Your task to perform on an android device: Is it going to rain tomorrow? Image 0: 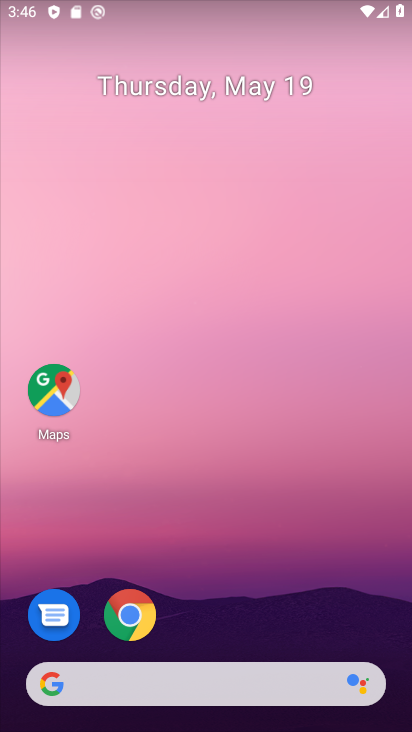
Step 0: click (119, 690)
Your task to perform on an android device: Is it going to rain tomorrow? Image 1: 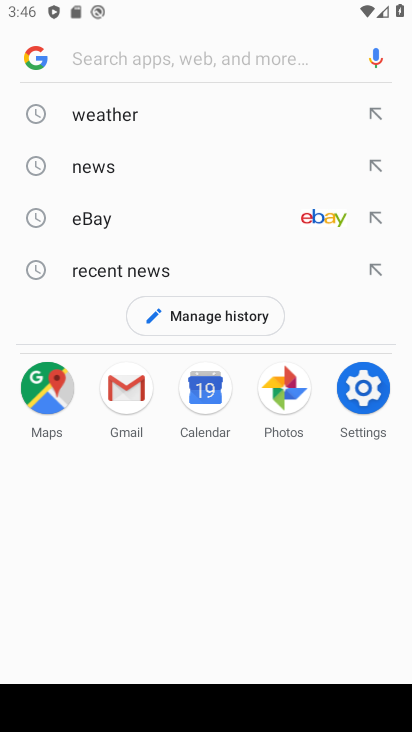
Step 1: click (82, 113)
Your task to perform on an android device: Is it going to rain tomorrow? Image 2: 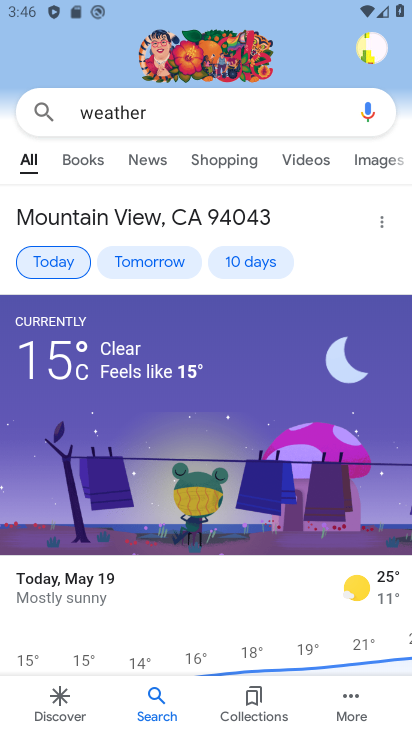
Step 2: click (148, 268)
Your task to perform on an android device: Is it going to rain tomorrow? Image 3: 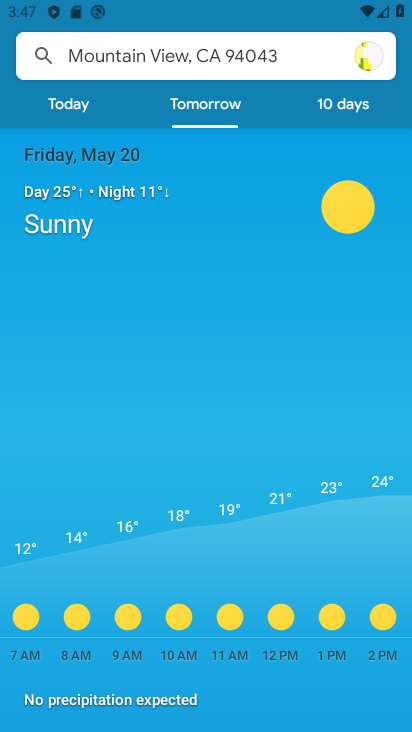
Step 3: task complete